Your task to perform on an android device: Search for the best selling book on Amazon. Image 0: 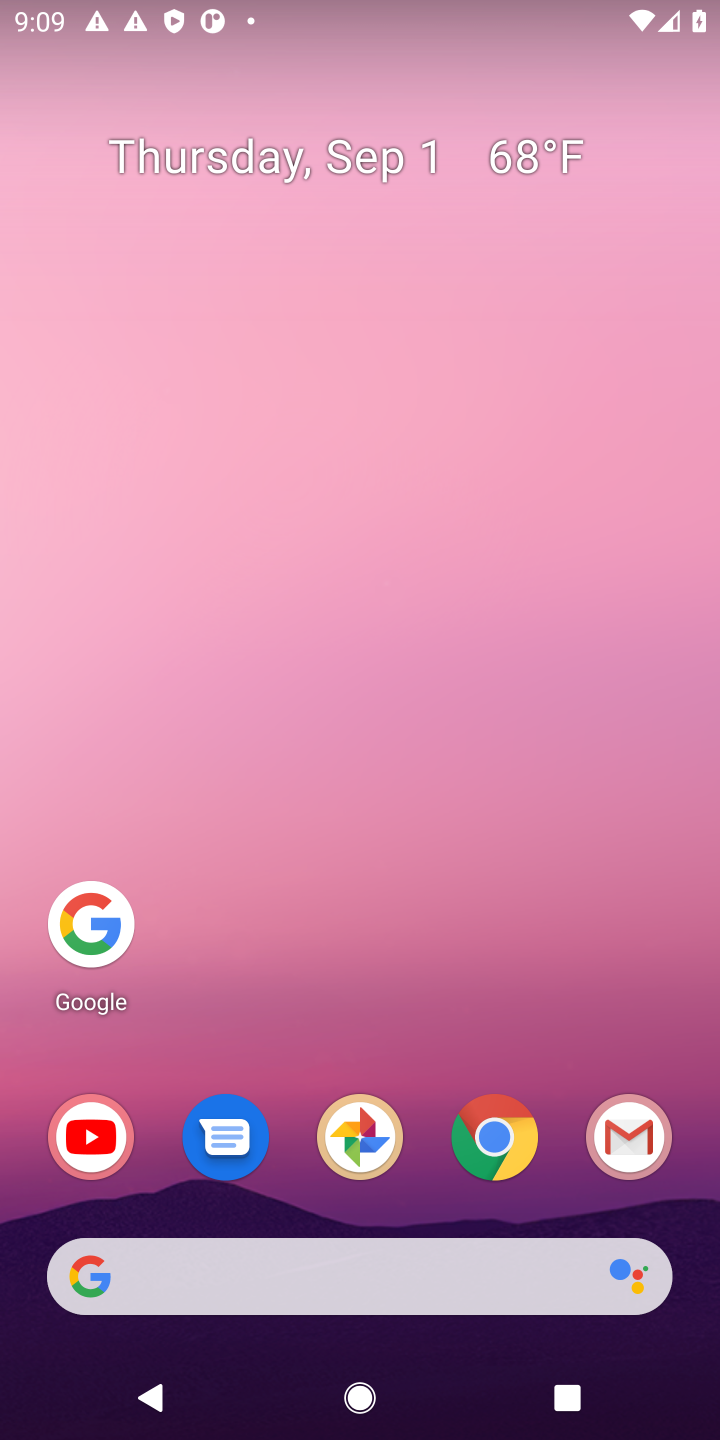
Step 0: click (97, 945)
Your task to perform on an android device: Search for the best selling book on Amazon. Image 1: 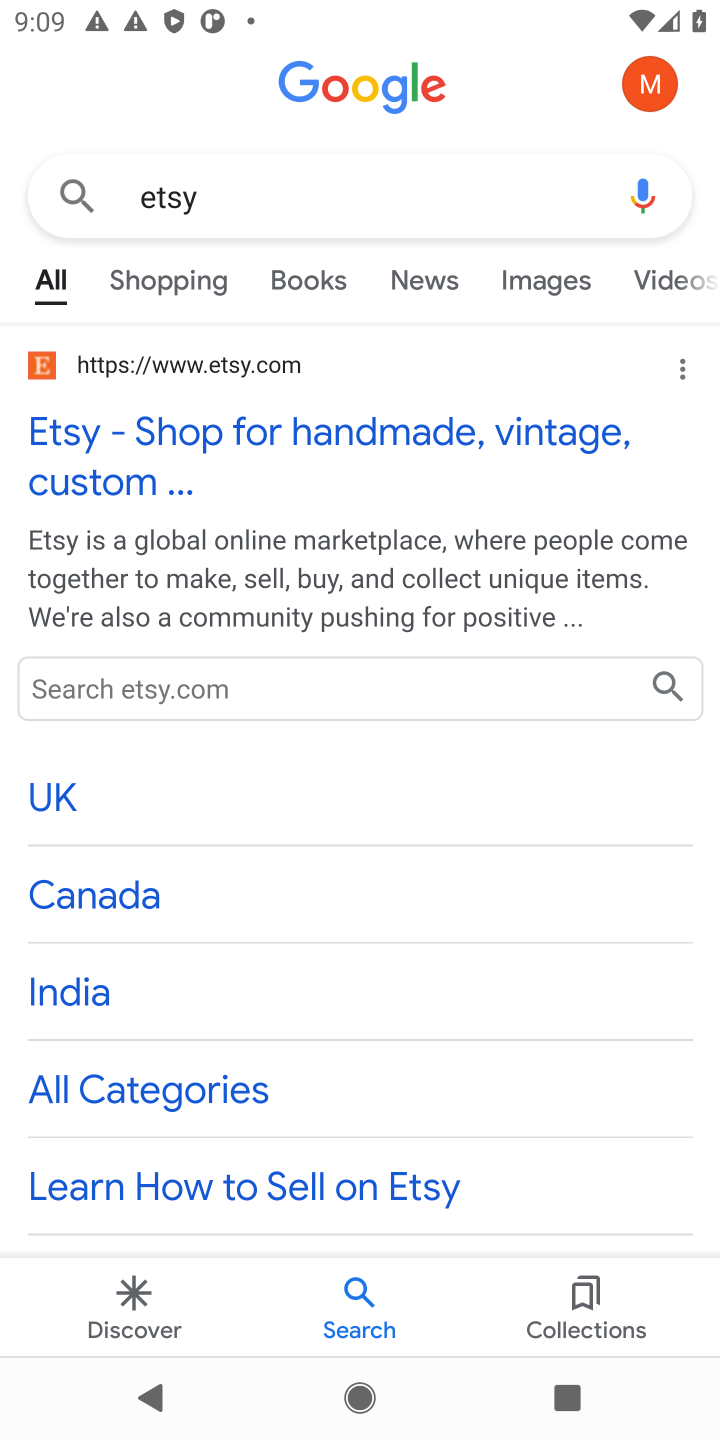
Step 1: click (241, 196)
Your task to perform on an android device: Search for the best selling book on Amazon. Image 2: 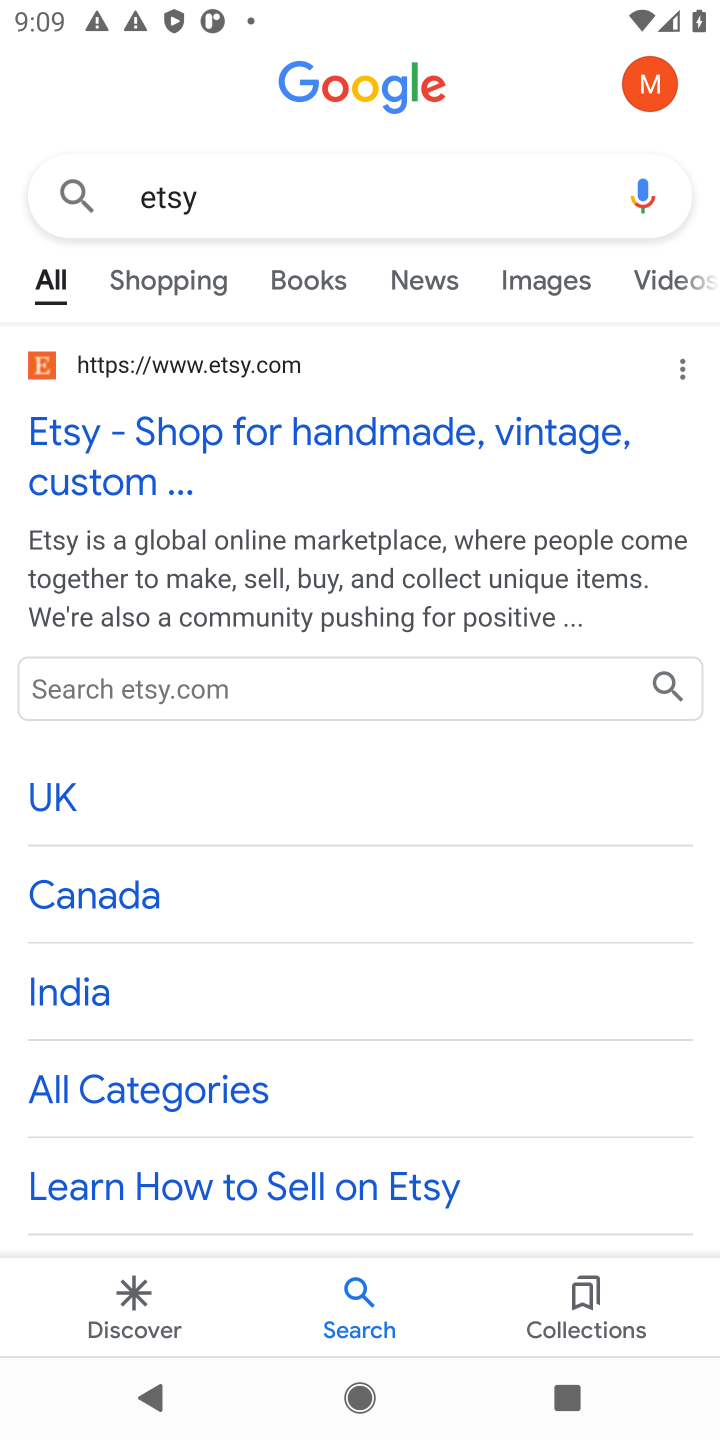
Step 2: click (241, 196)
Your task to perform on an android device: Search for the best selling book on Amazon. Image 3: 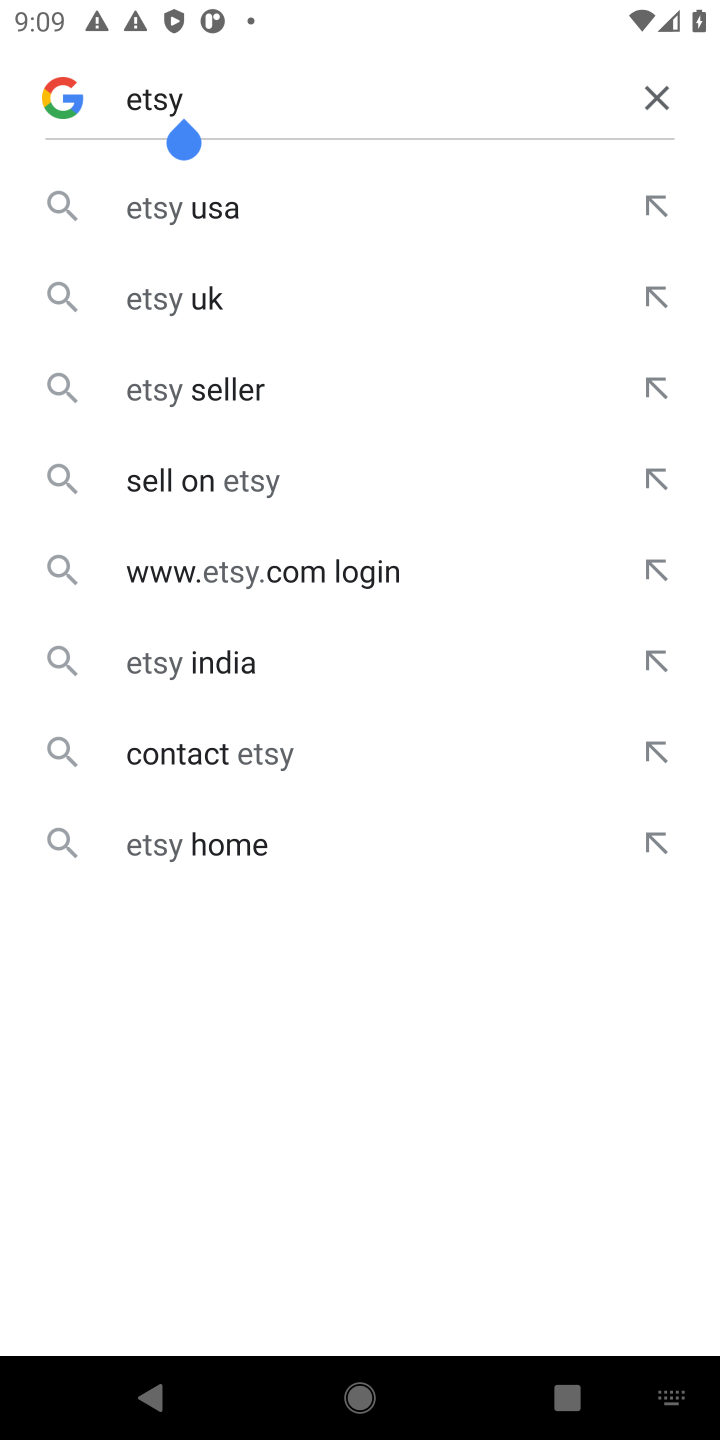
Step 3: click (667, 83)
Your task to perform on an android device: Search for the best selling book on Amazon. Image 4: 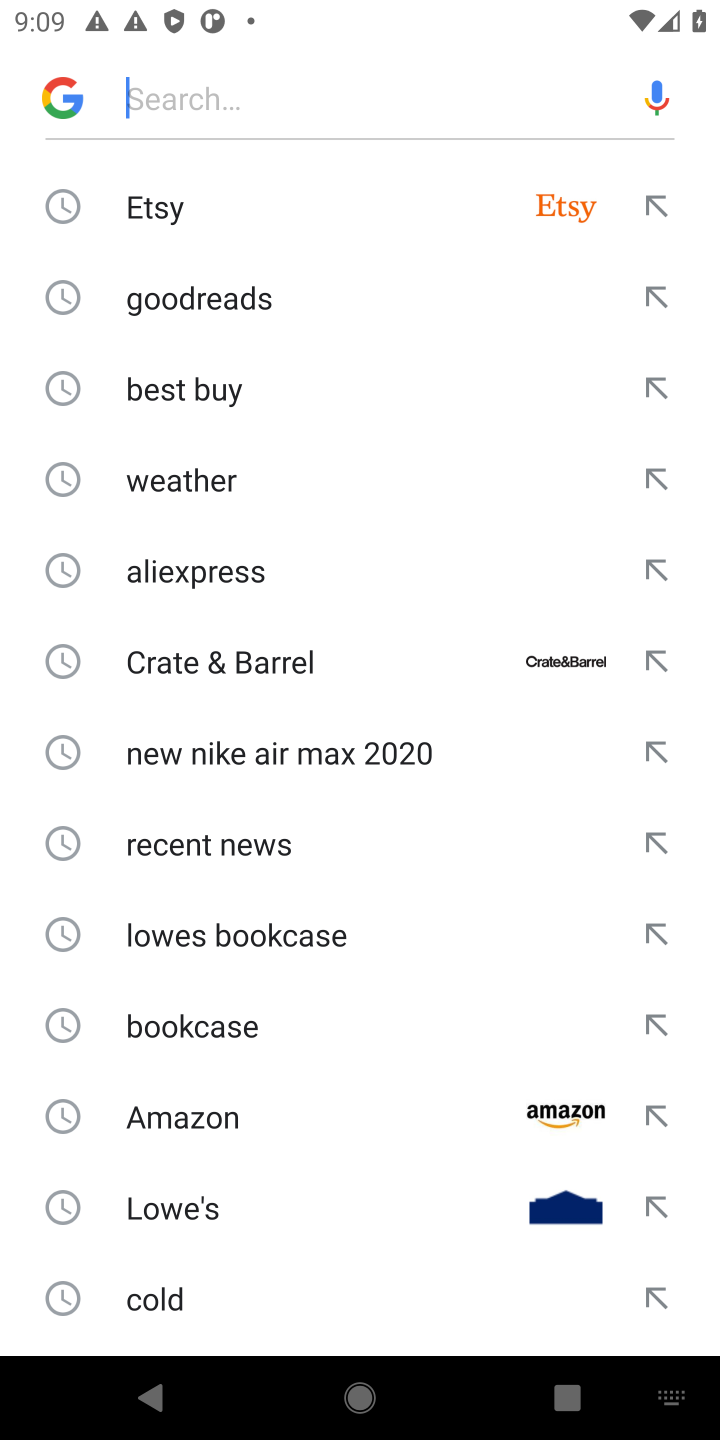
Step 4: click (186, 1101)
Your task to perform on an android device: Search for the best selling book on Amazon. Image 5: 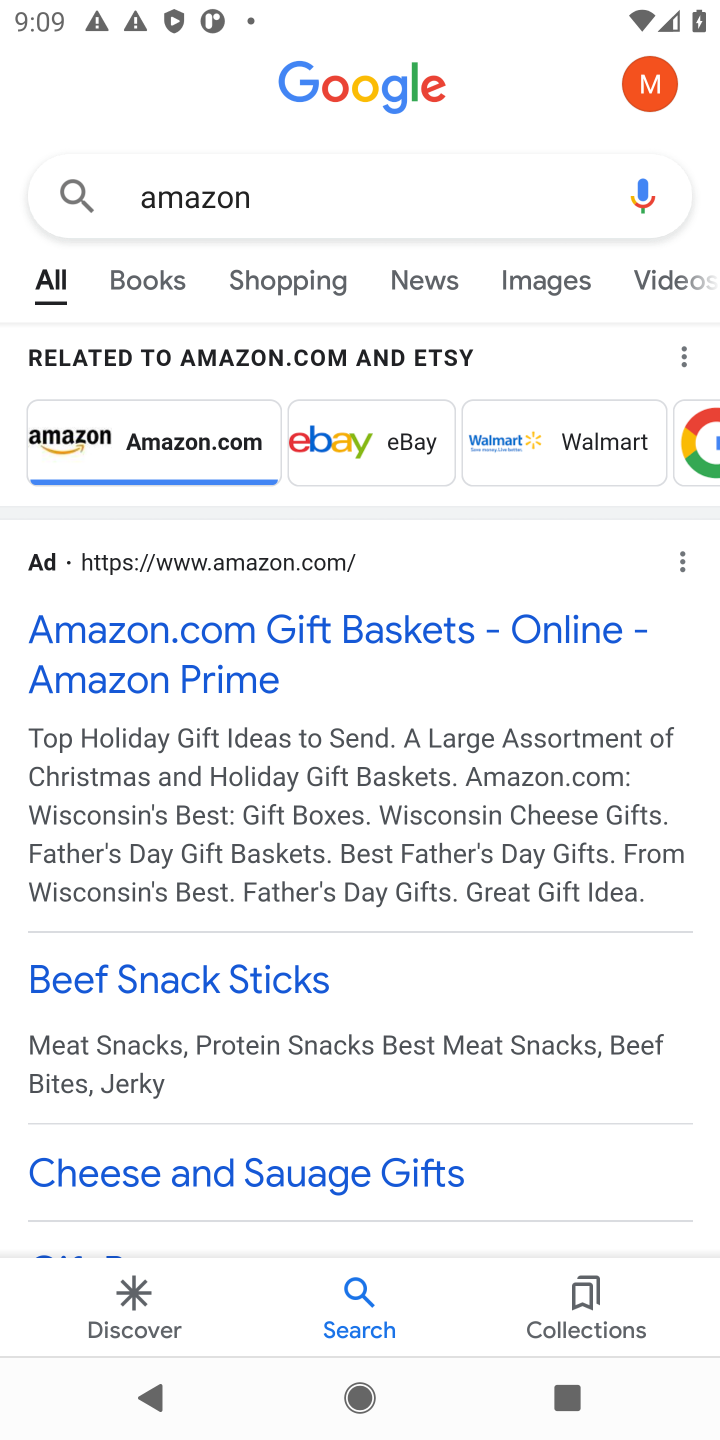
Step 5: click (143, 619)
Your task to perform on an android device: Search for the best selling book on Amazon. Image 6: 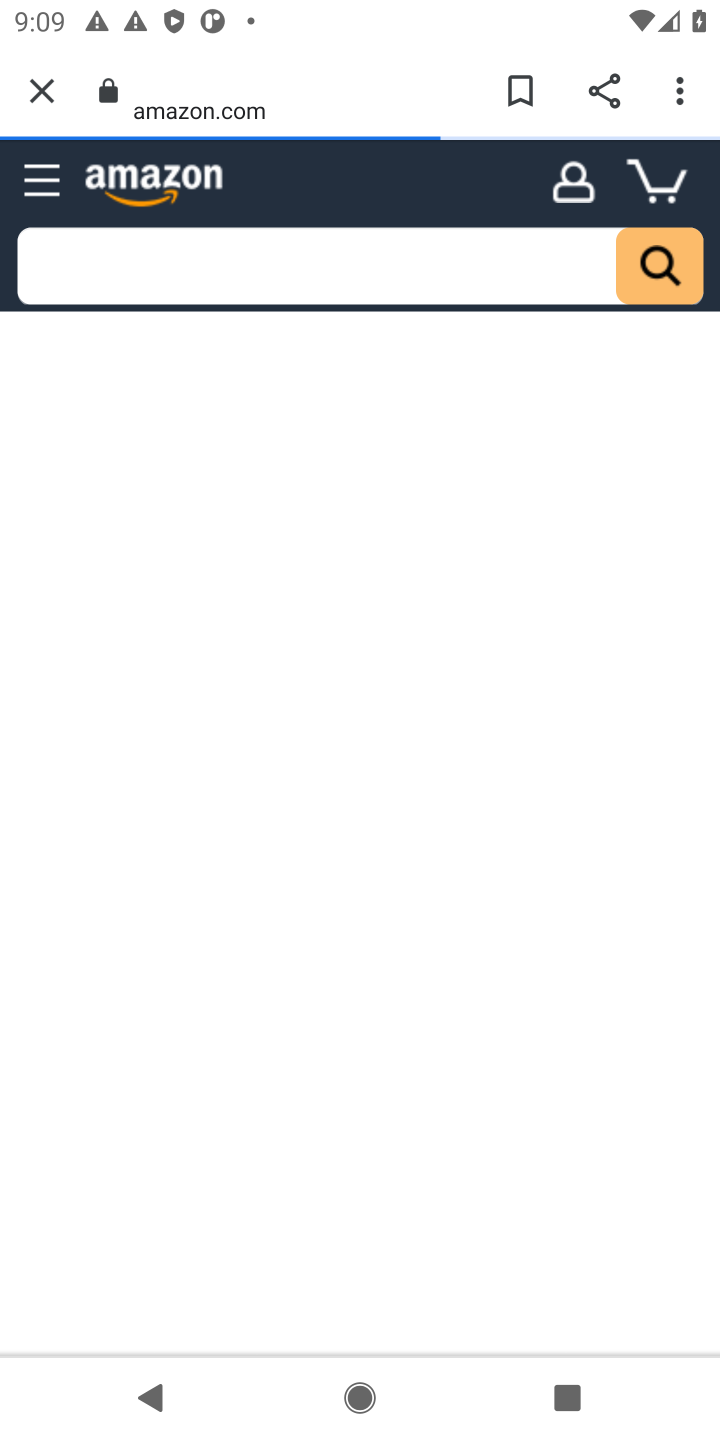
Step 6: click (140, 636)
Your task to perform on an android device: Search for the best selling book on Amazon. Image 7: 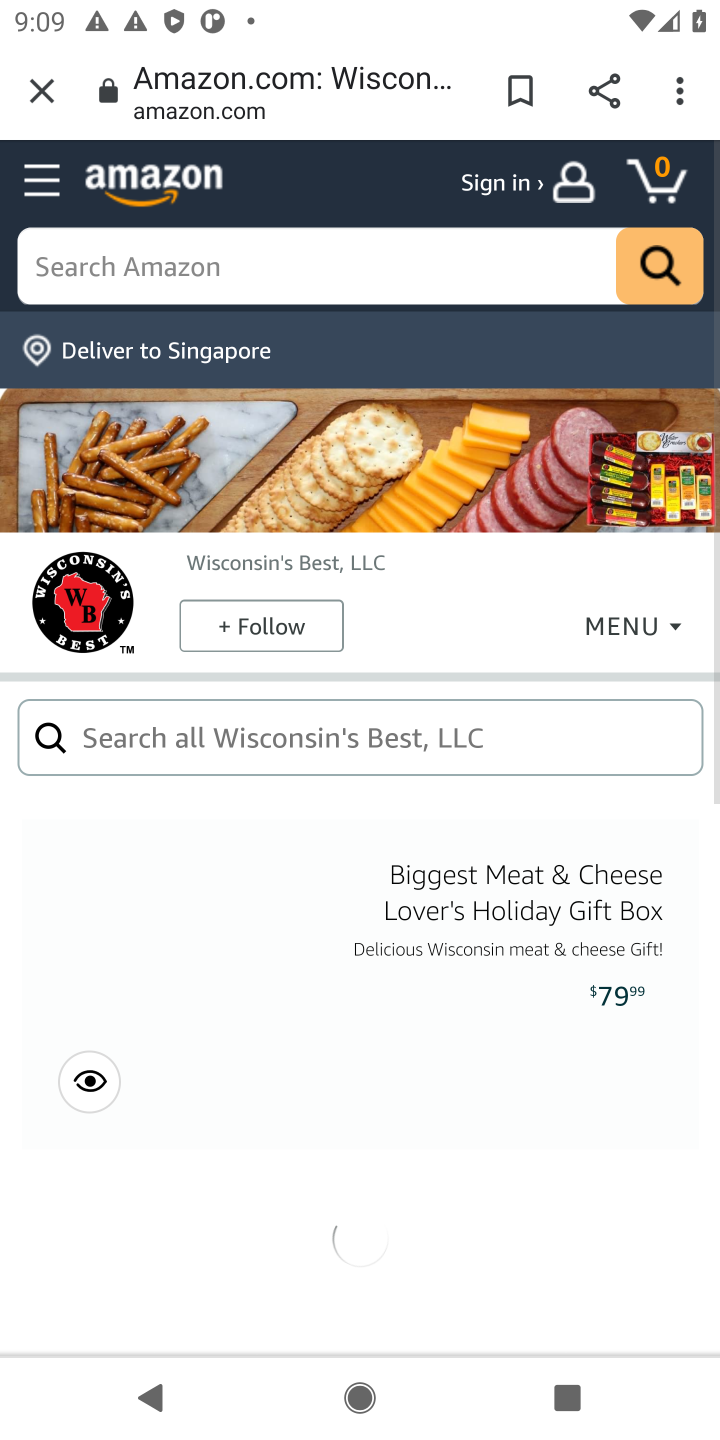
Step 7: click (402, 235)
Your task to perform on an android device: Search for the best selling book on Amazon. Image 8: 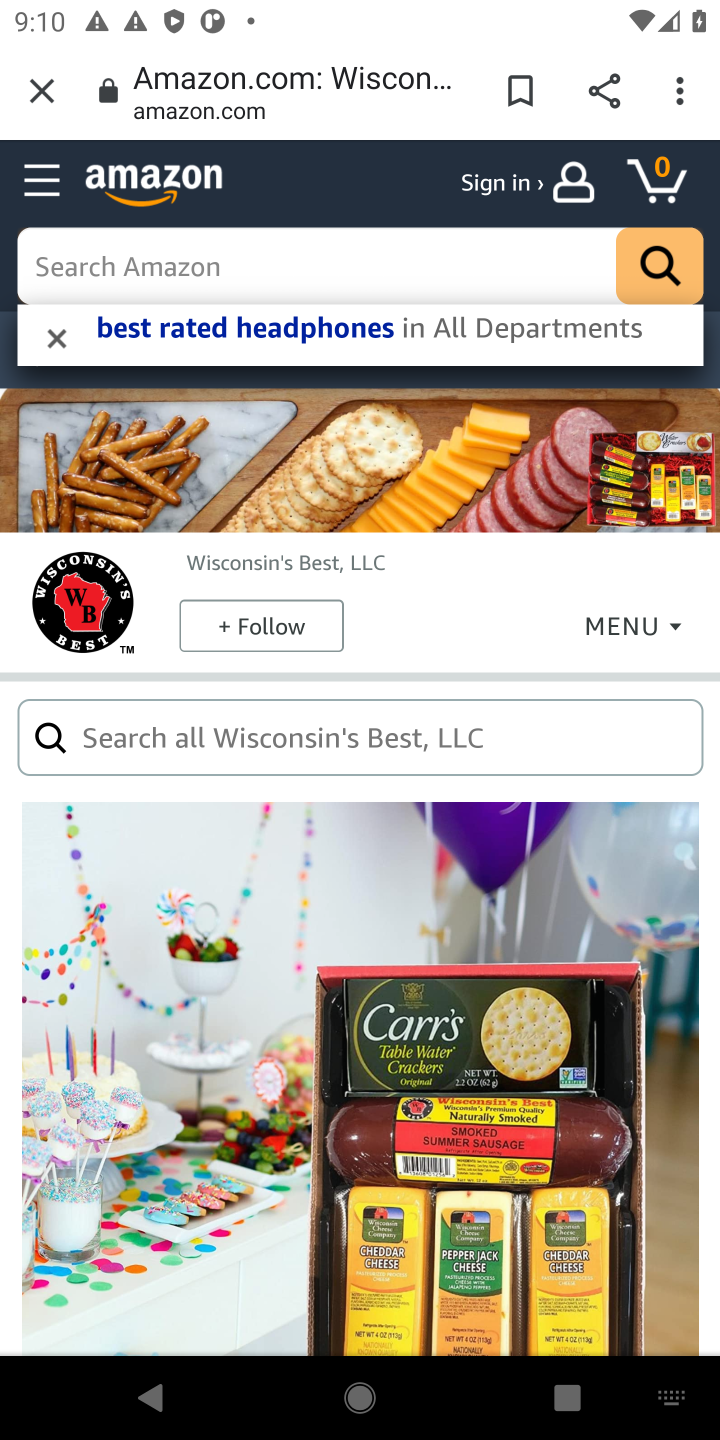
Step 8: type "best selling book"
Your task to perform on an android device: Search for the best selling book on Amazon. Image 9: 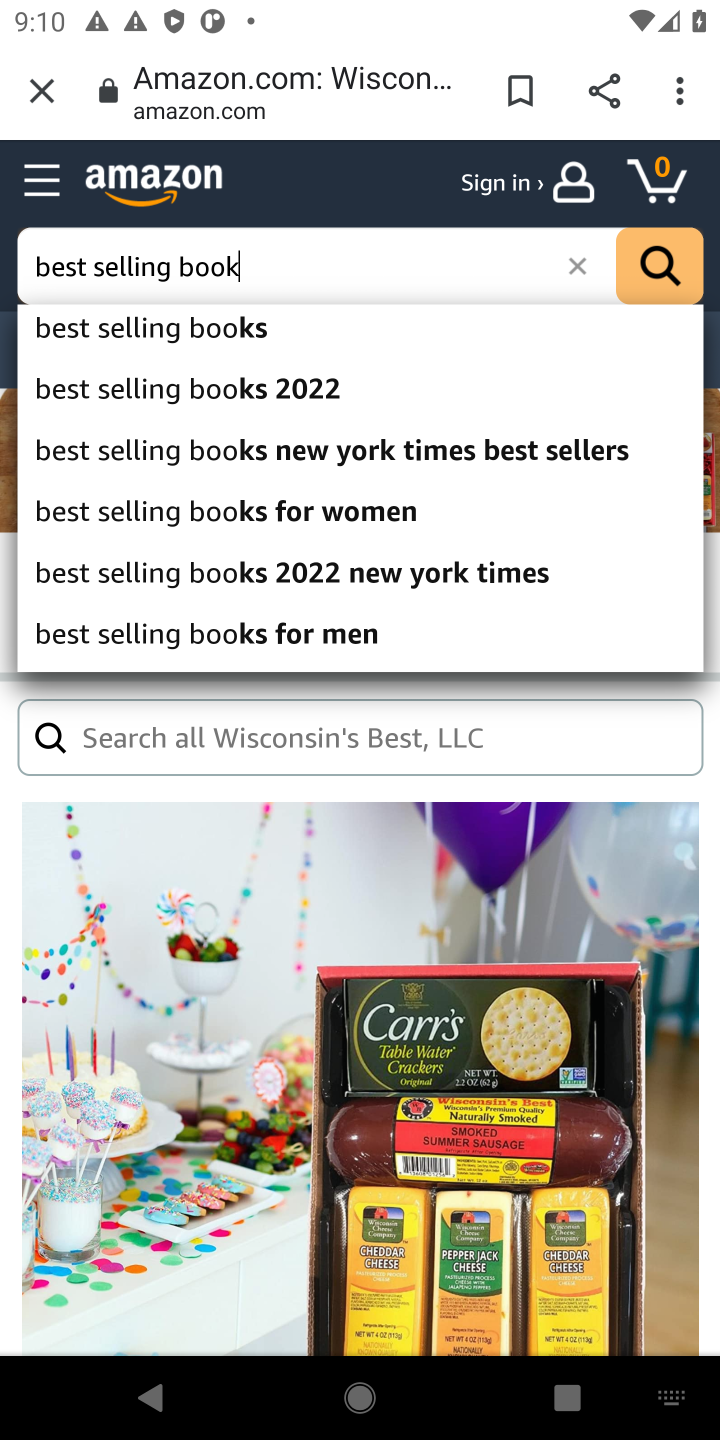
Step 9: click (666, 265)
Your task to perform on an android device: Search for the best selling book on Amazon. Image 10: 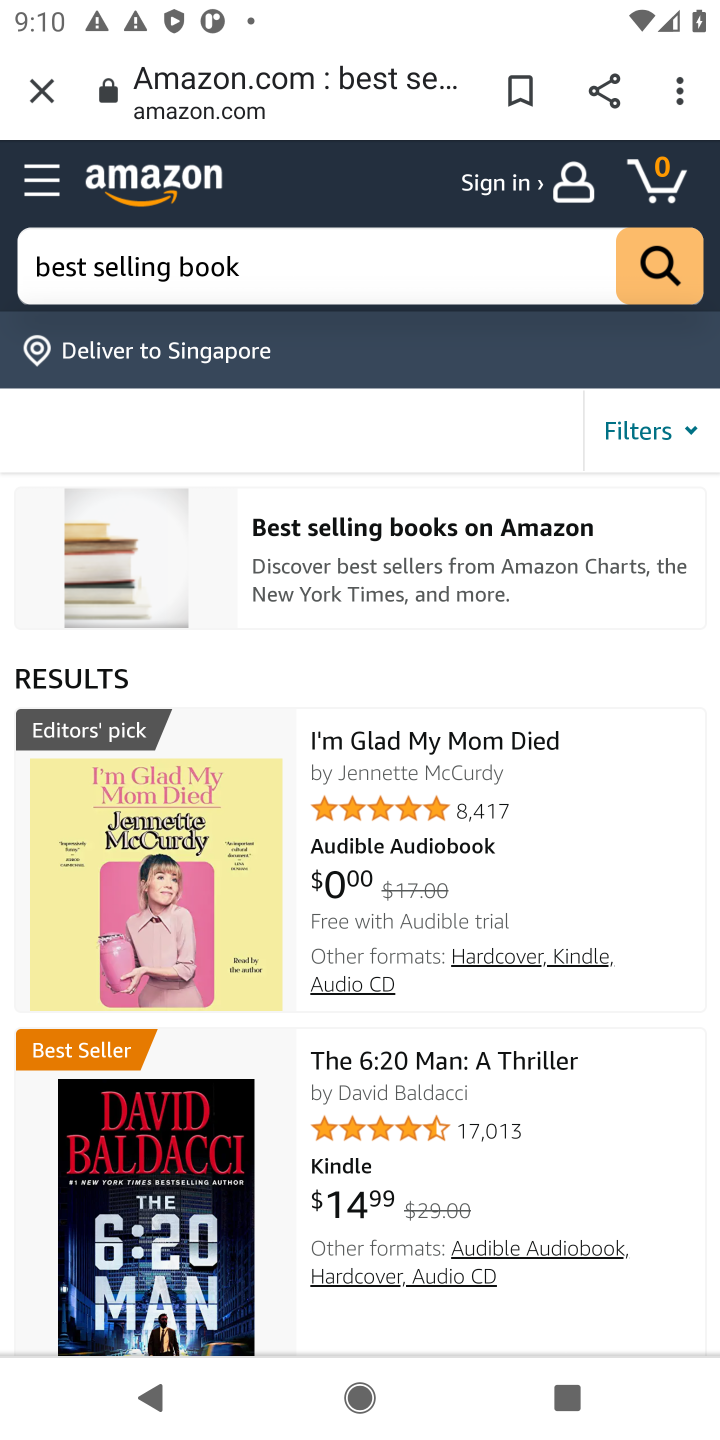
Step 10: task complete